Your task to perform on an android device: Go to network settings Image 0: 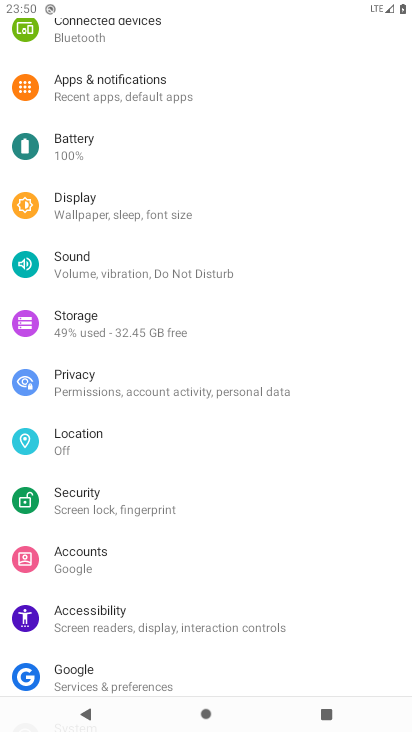
Step 0: press home button
Your task to perform on an android device: Go to network settings Image 1: 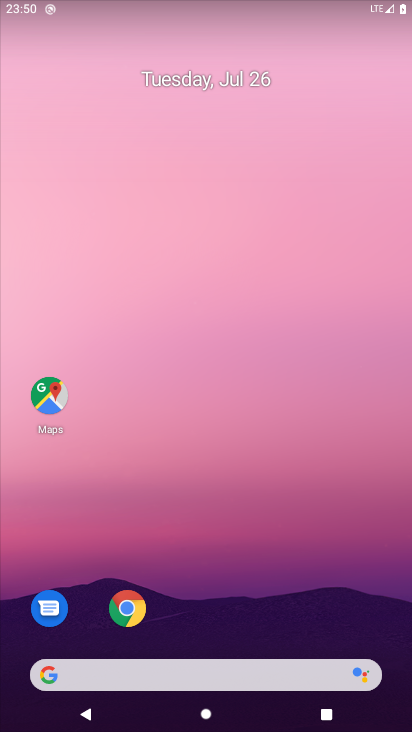
Step 1: drag from (221, 598) to (265, 19)
Your task to perform on an android device: Go to network settings Image 2: 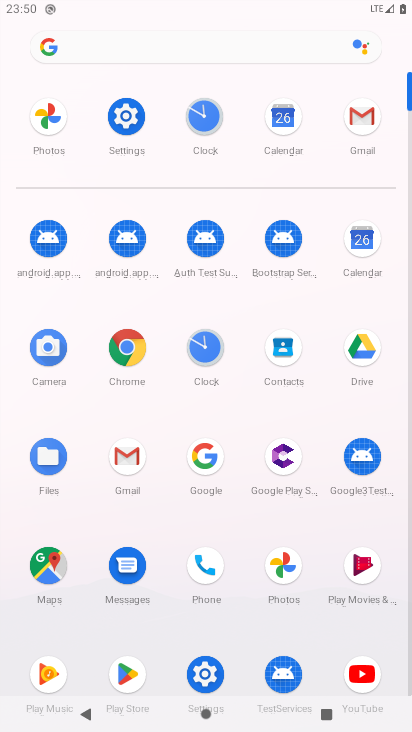
Step 2: click (129, 115)
Your task to perform on an android device: Go to network settings Image 3: 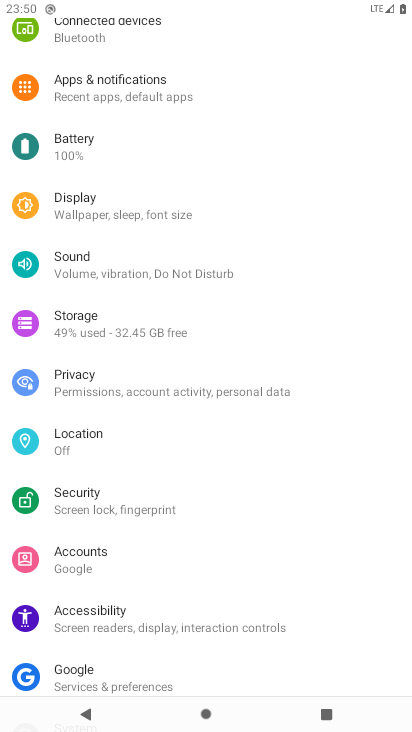
Step 3: drag from (171, 55) to (179, 348)
Your task to perform on an android device: Go to network settings Image 4: 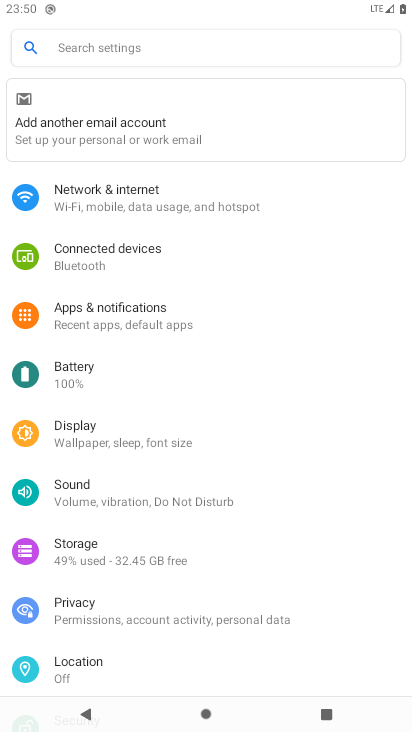
Step 4: click (132, 194)
Your task to perform on an android device: Go to network settings Image 5: 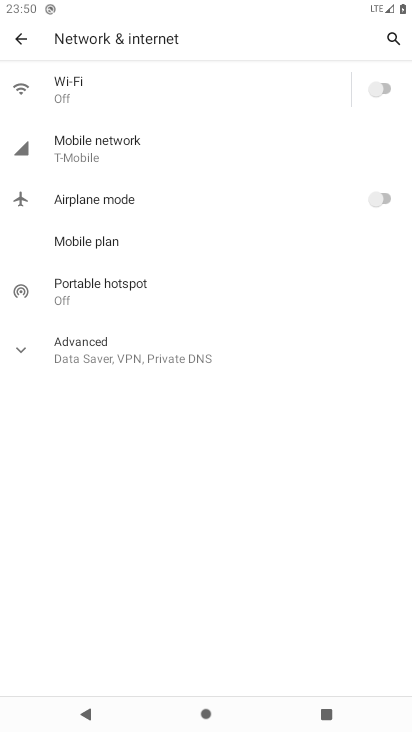
Step 5: task complete